Your task to perform on an android device: Go to network settings Image 0: 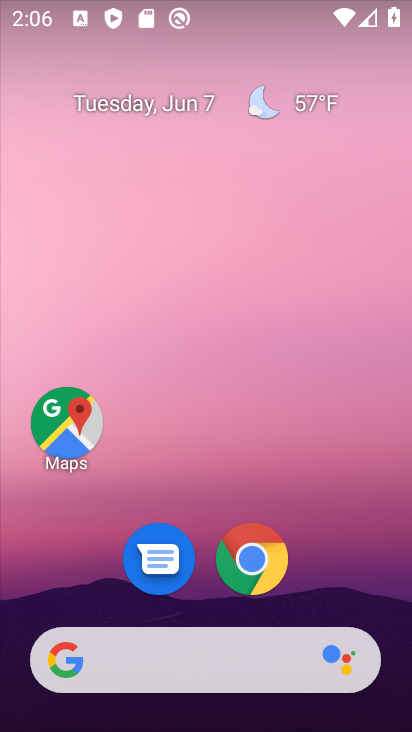
Step 0: drag from (7, 459) to (207, 146)
Your task to perform on an android device: Go to network settings Image 1: 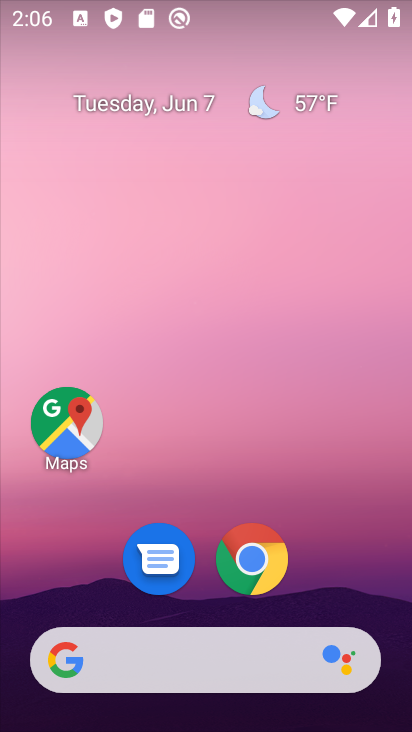
Step 1: drag from (7, 641) to (255, 70)
Your task to perform on an android device: Go to network settings Image 2: 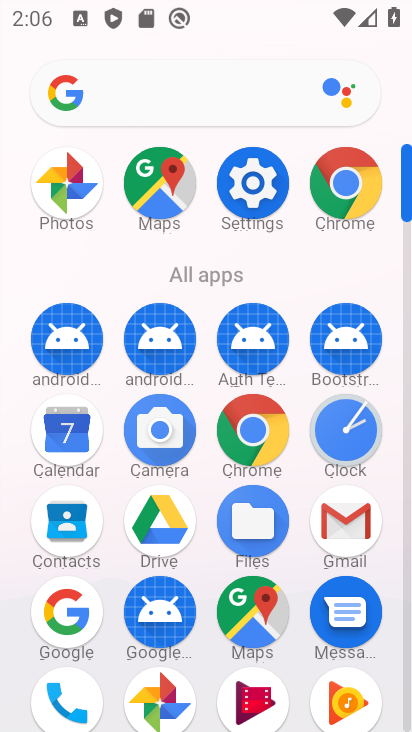
Step 2: click (255, 191)
Your task to perform on an android device: Go to network settings Image 3: 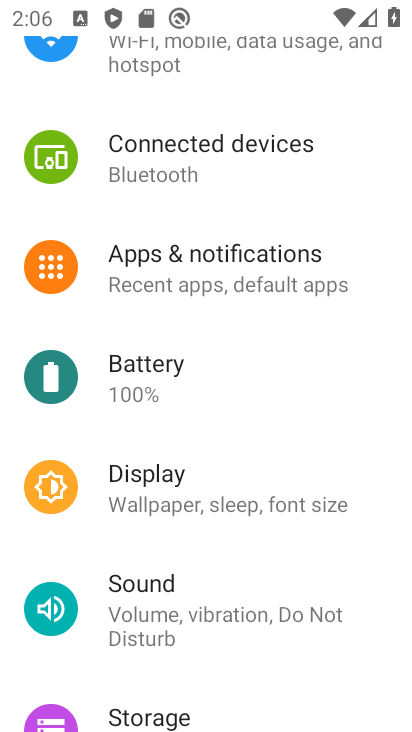
Step 3: drag from (182, 56) to (149, 538)
Your task to perform on an android device: Go to network settings Image 4: 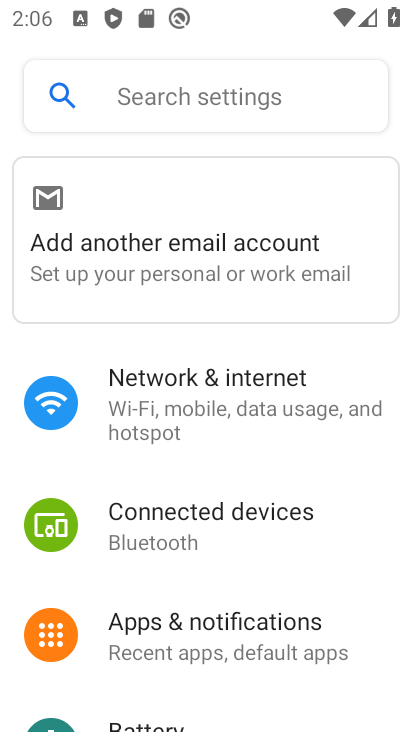
Step 4: click (188, 410)
Your task to perform on an android device: Go to network settings Image 5: 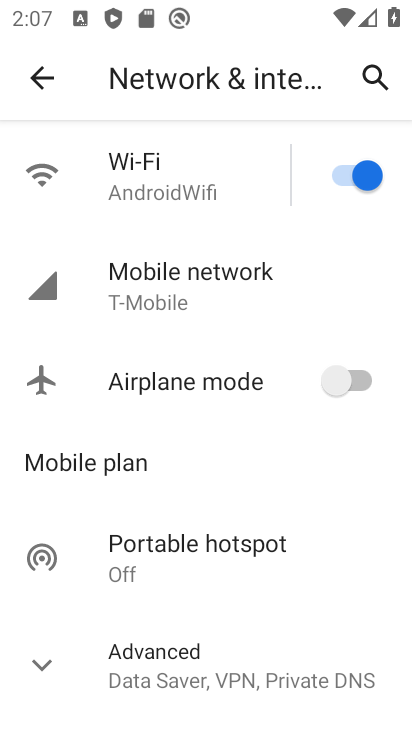
Step 5: click (187, 278)
Your task to perform on an android device: Go to network settings Image 6: 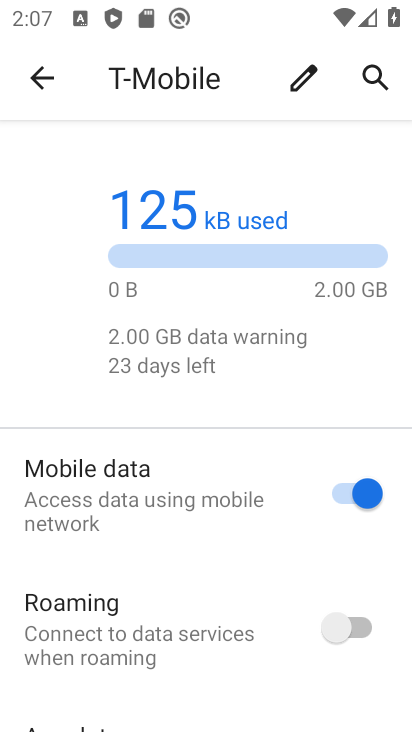
Step 6: task complete